Your task to perform on an android device: delete the emails in spam in the gmail app Image 0: 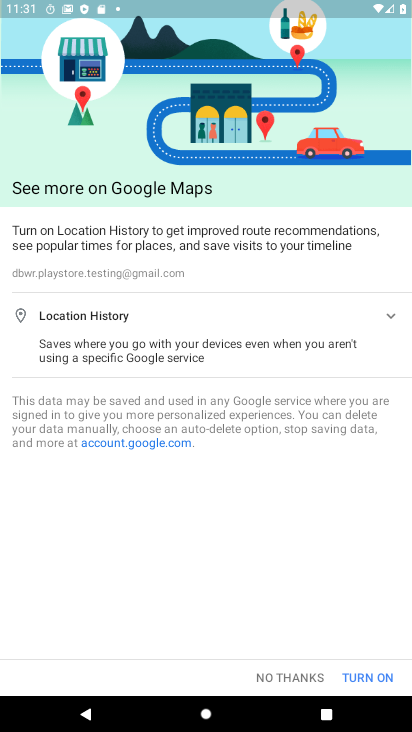
Step 0: press back button
Your task to perform on an android device: delete the emails in spam in the gmail app Image 1: 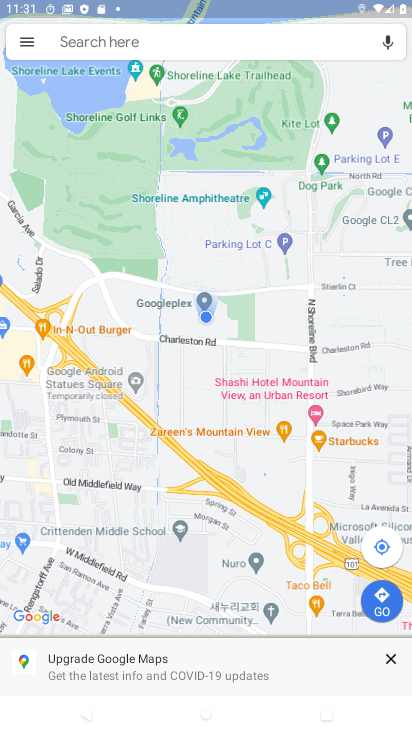
Step 1: press back button
Your task to perform on an android device: delete the emails in spam in the gmail app Image 2: 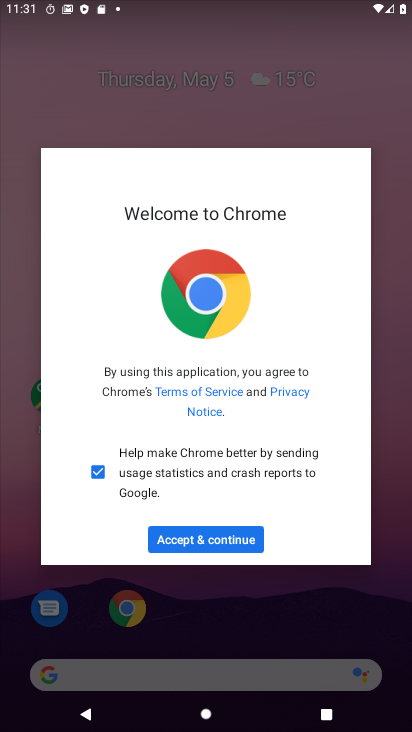
Step 2: press back button
Your task to perform on an android device: delete the emails in spam in the gmail app Image 3: 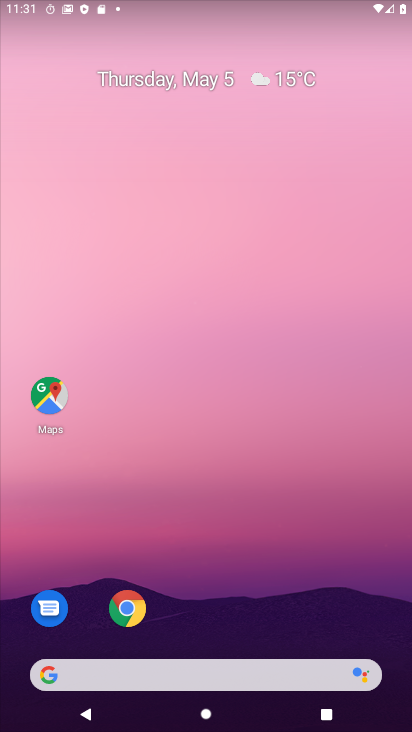
Step 3: drag from (194, 579) to (191, 34)
Your task to perform on an android device: delete the emails in spam in the gmail app Image 4: 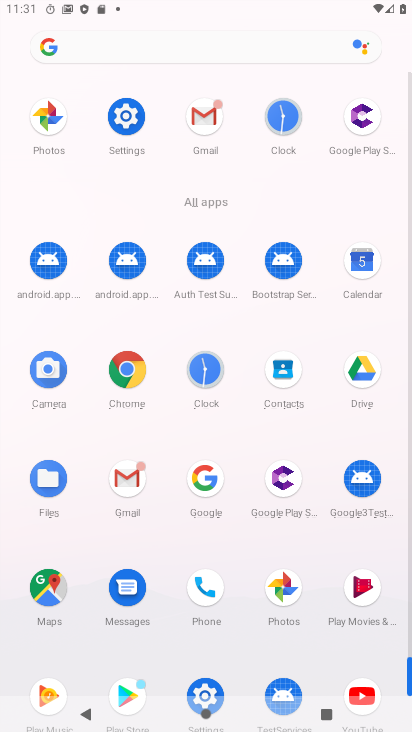
Step 4: click (203, 116)
Your task to perform on an android device: delete the emails in spam in the gmail app Image 5: 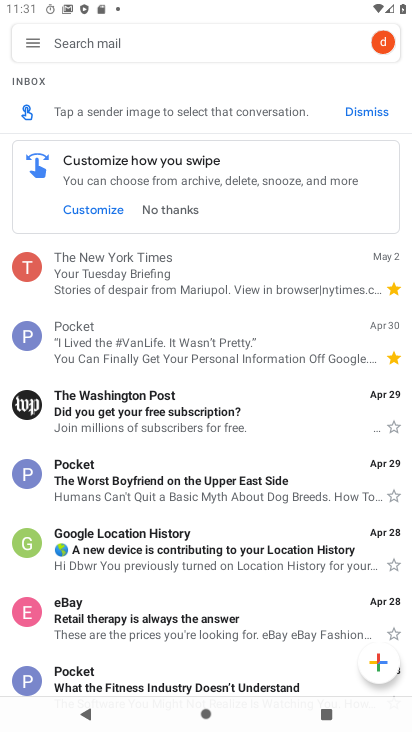
Step 5: click (32, 45)
Your task to perform on an android device: delete the emails in spam in the gmail app Image 6: 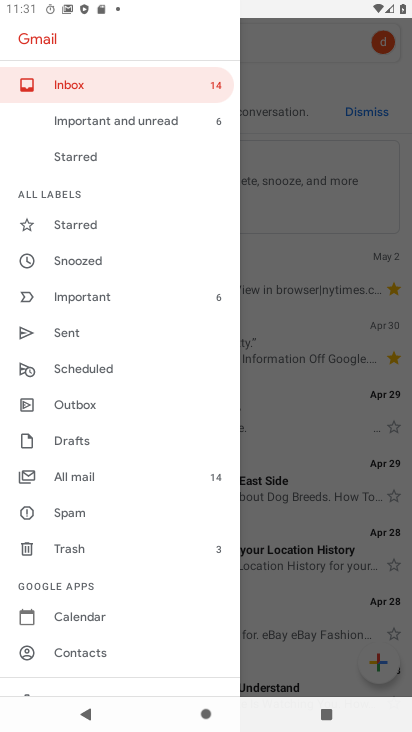
Step 6: click (73, 515)
Your task to perform on an android device: delete the emails in spam in the gmail app Image 7: 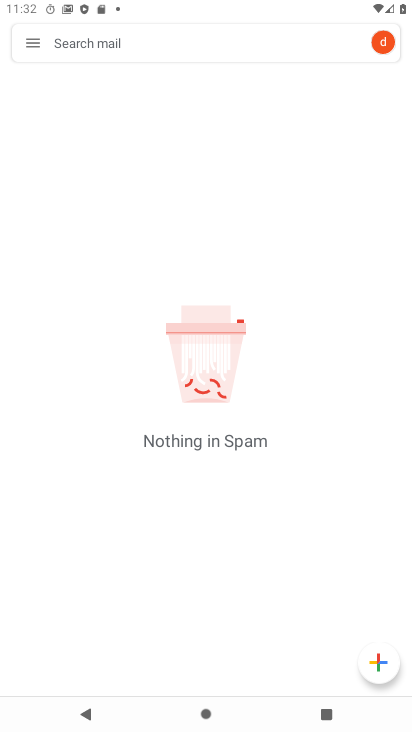
Step 7: task complete